Your task to perform on an android device: Show me the alarms in the clock app Image 0: 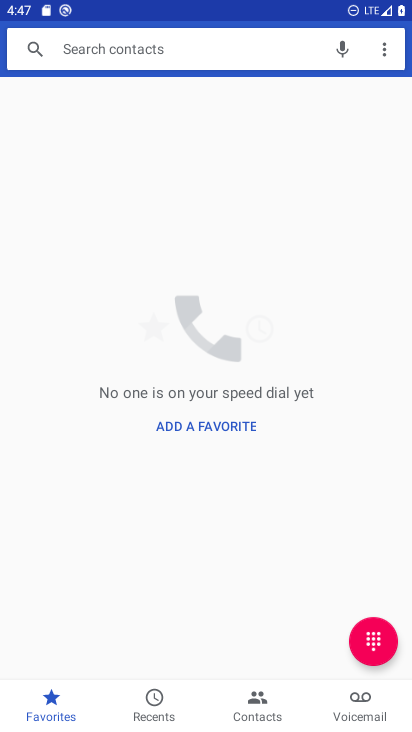
Step 0: press home button
Your task to perform on an android device: Show me the alarms in the clock app Image 1: 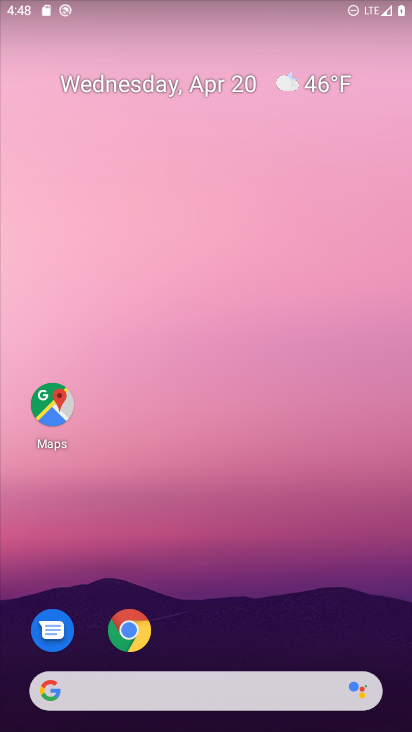
Step 1: drag from (302, 631) to (275, 102)
Your task to perform on an android device: Show me the alarms in the clock app Image 2: 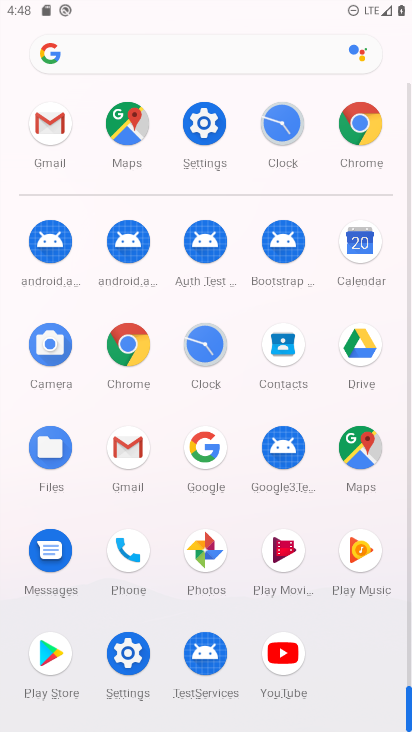
Step 2: click (201, 349)
Your task to perform on an android device: Show me the alarms in the clock app Image 3: 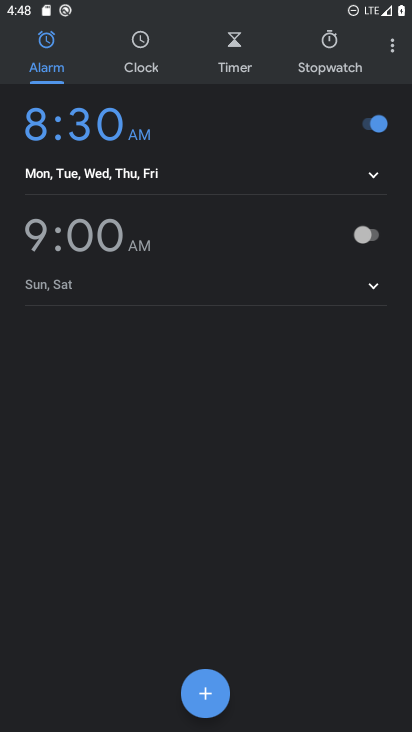
Step 3: task complete